Your task to perform on an android device: make emails show in primary in the gmail app Image 0: 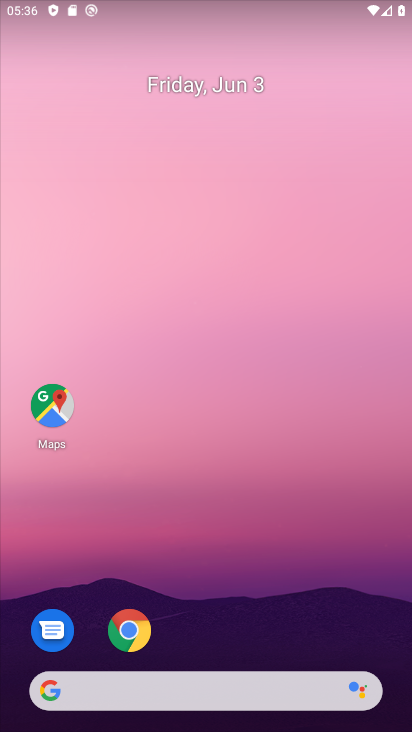
Step 0: drag from (198, 627) to (154, 122)
Your task to perform on an android device: make emails show in primary in the gmail app Image 1: 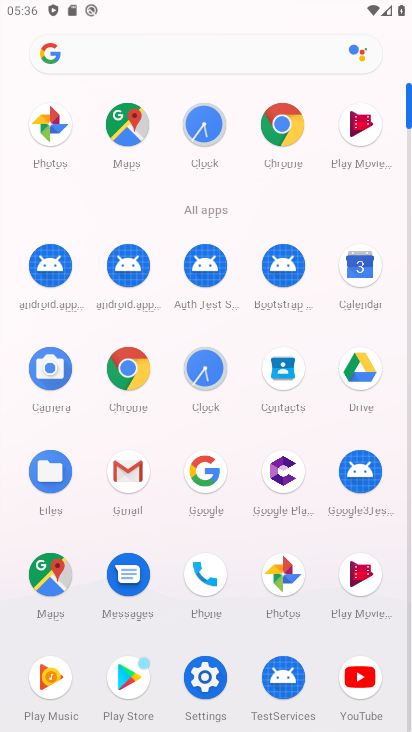
Step 1: click (110, 470)
Your task to perform on an android device: make emails show in primary in the gmail app Image 2: 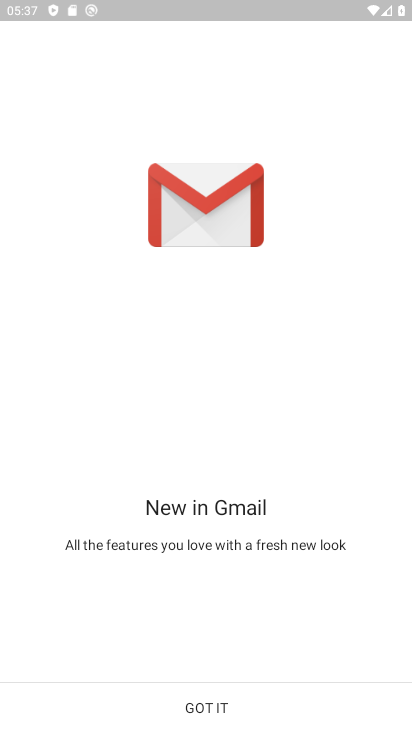
Step 2: click (118, 702)
Your task to perform on an android device: make emails show in primary in the gmail app Image 3: 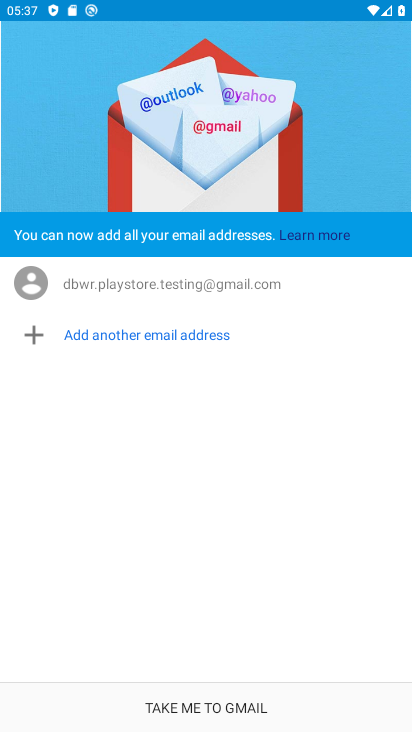
Step 3: click (216, 696)
Your task to perform on an android device: make emails show in primary in the gmail app Image 4: 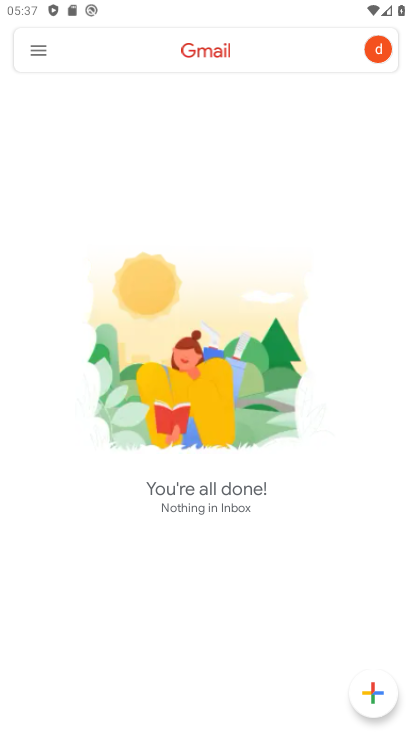
Step 4: click (21, 49)
Your task to perform on an android device: make emails show in primary in the gmail app Image 5: 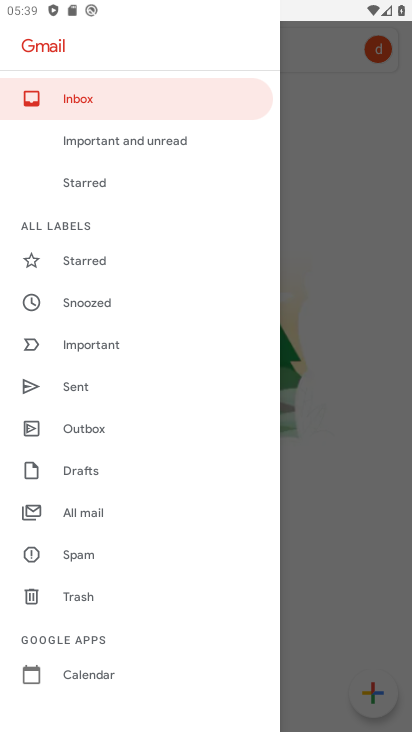
Step 5: task complete